Your task to perform on an android device: find snoozed emails in the gmail app Image 0: 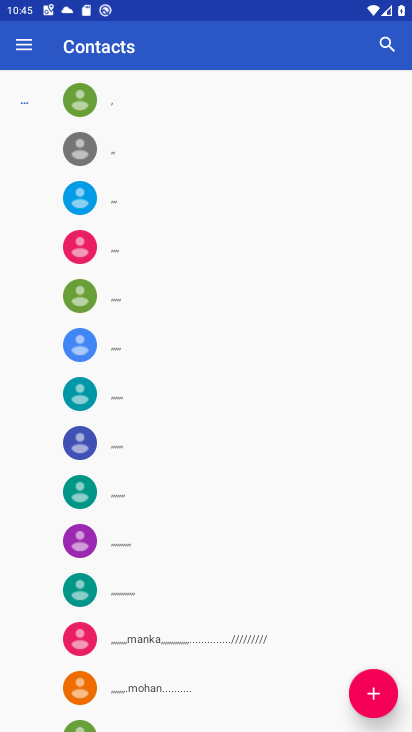
Step 0: press home button
Your task to perform on an android device: find snoozed emails in the gmail app Image 1: 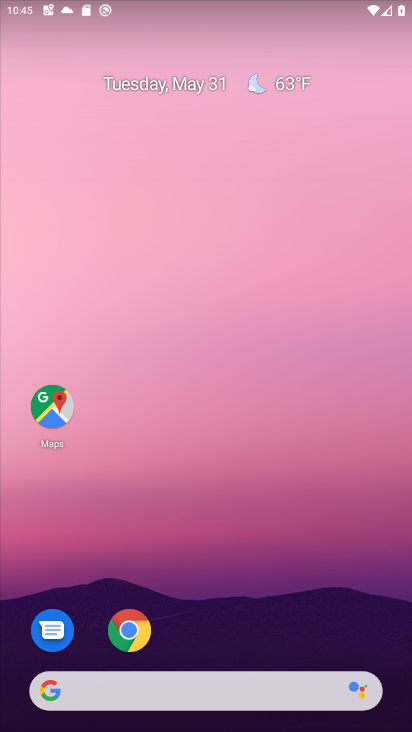
Step 1: drag from (241, 630) to (212, 56)
Your task to perform on an android device: find snoozed emails in the gmail app Image 2: 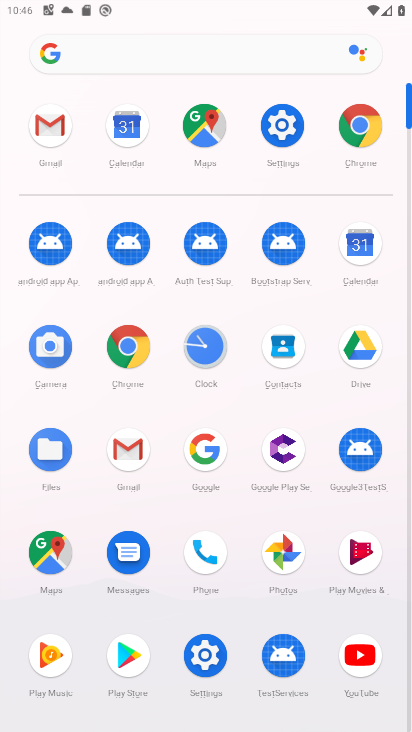
Step 2: click (51, 120)
Your task to perform on an android device: find snoozed emails in the gmail app Image 3: 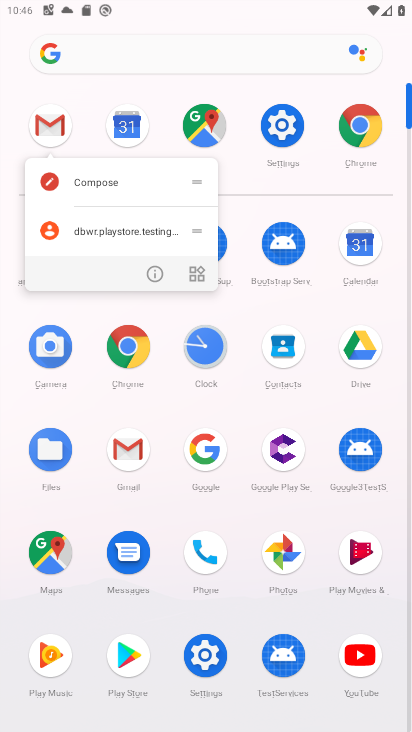
Step 3: click (44, 124)
Your task to perform on an android device: find snoozed emails in the gmail app Image 4: 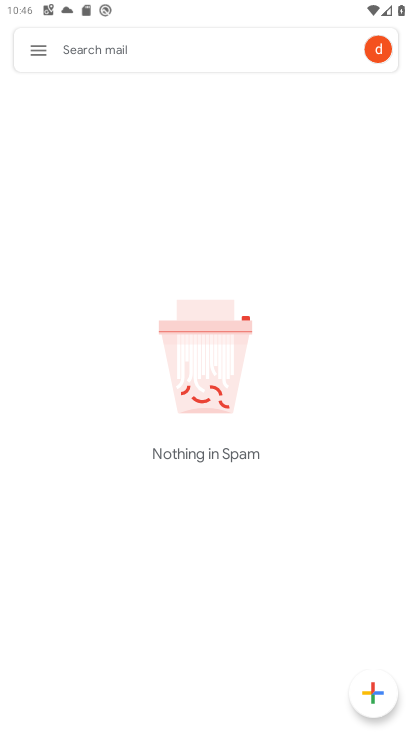
Step 4: click (41, 46)
Your task to perform on an android device: find snoozed emails in the gmail app Image 5: 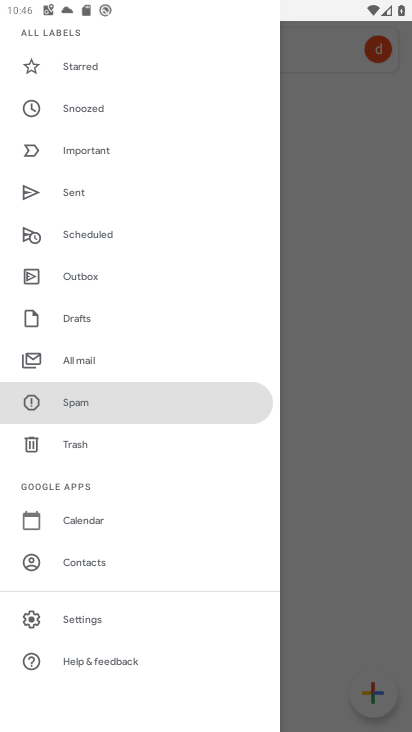
Step 5: click (91, 109)
Your task to perform on an android device: find snoozed emails in the gmail app Image 6: 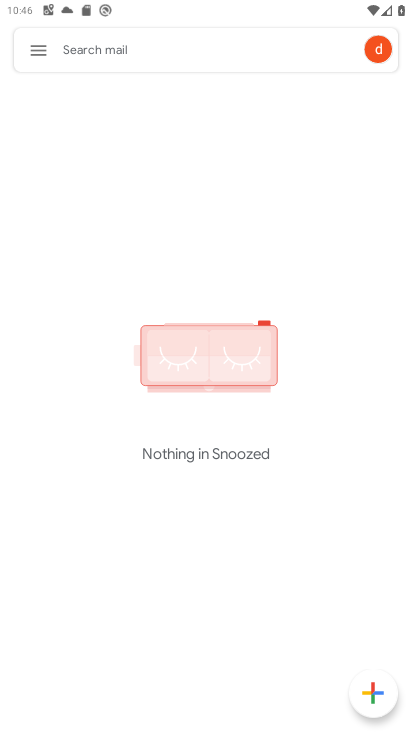
Step 6: task complete